Your task to perform on an android device: Add "razer thresher" to the cart on newegg.com, then select checkout. Image 0: 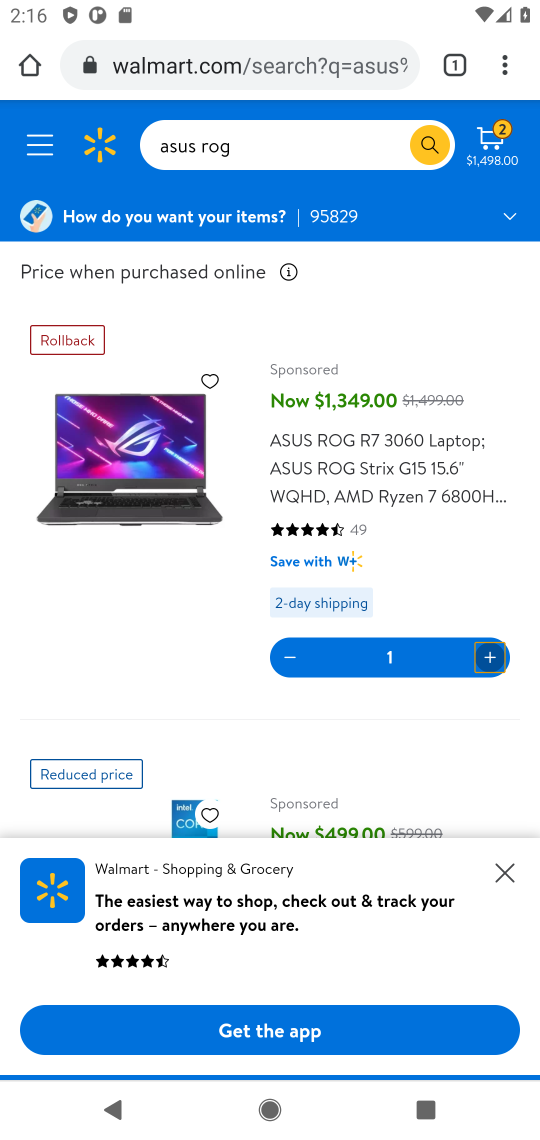
Step 0: click (229, 59)
Your task to perform on an android device: Add "razer thresher" to the cart on newegg.com, then select checkout. Image 1: 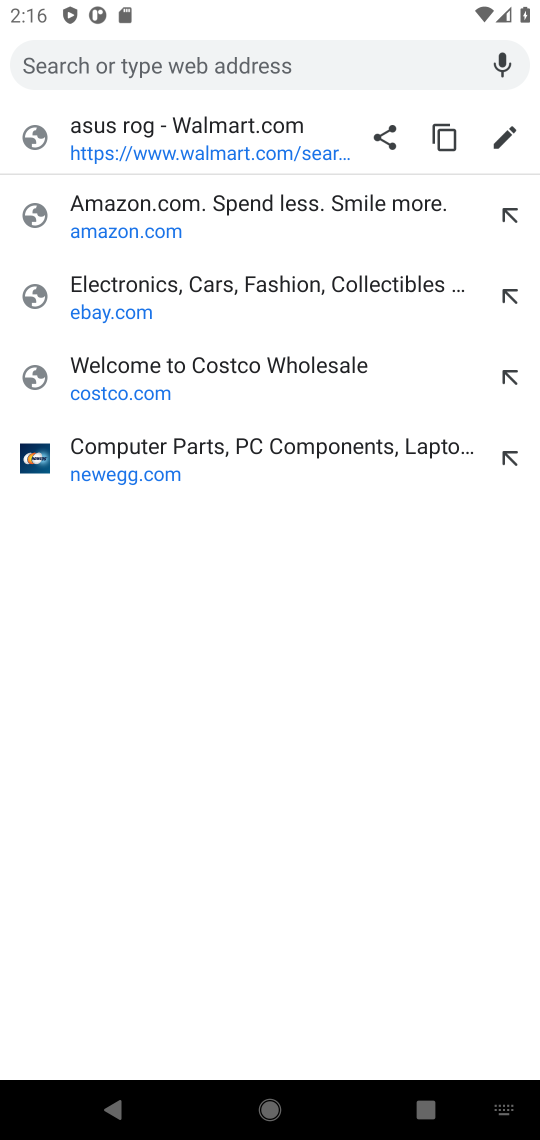
Step 1: click (88, 477)
Your task to perform on an android device: Add "razer thresher" to the cart on newegg.com, then select checkout. Image 2: 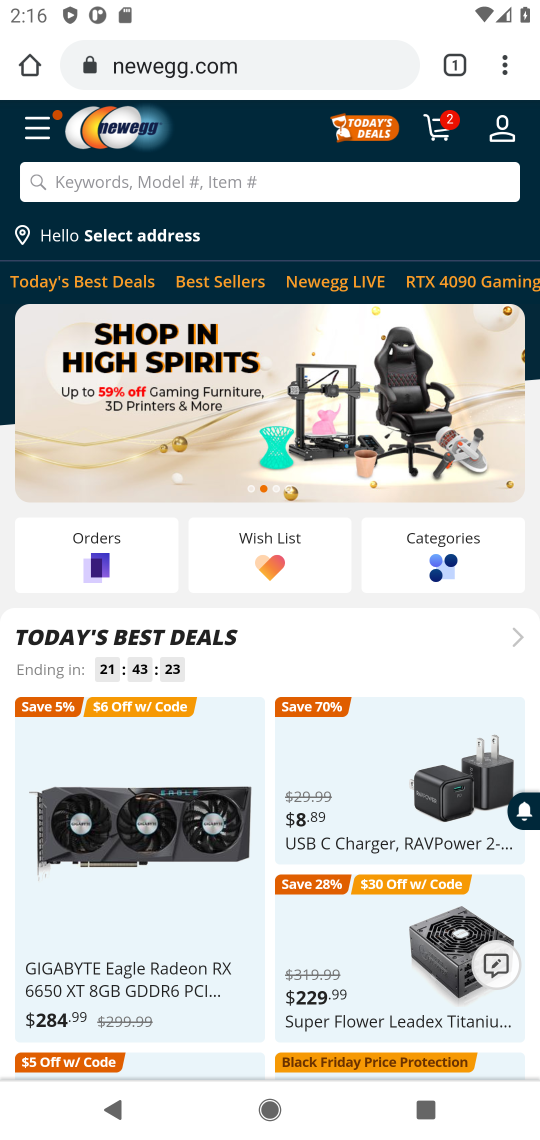
Step 2: click (201, 179)
Your task to perform on an android device: Add "razer thresher" to the cart on newegg.com, then select checkout. Image 3: 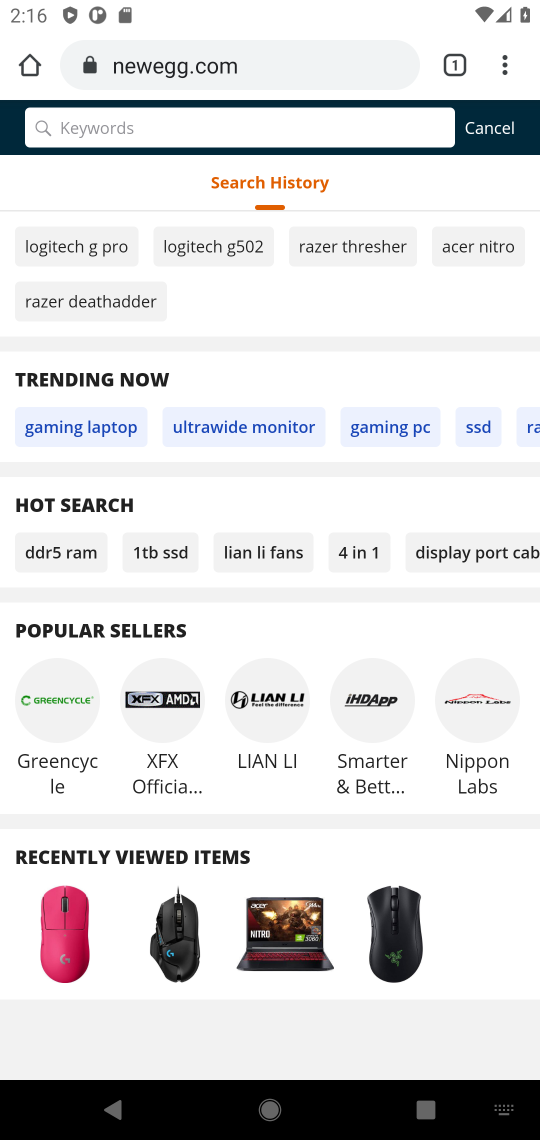
Step 3: type "razer thresher"
Your task to perform on an android device: Add "razer thresher" to the cart on newegg.com, then select checkout. Image 4: 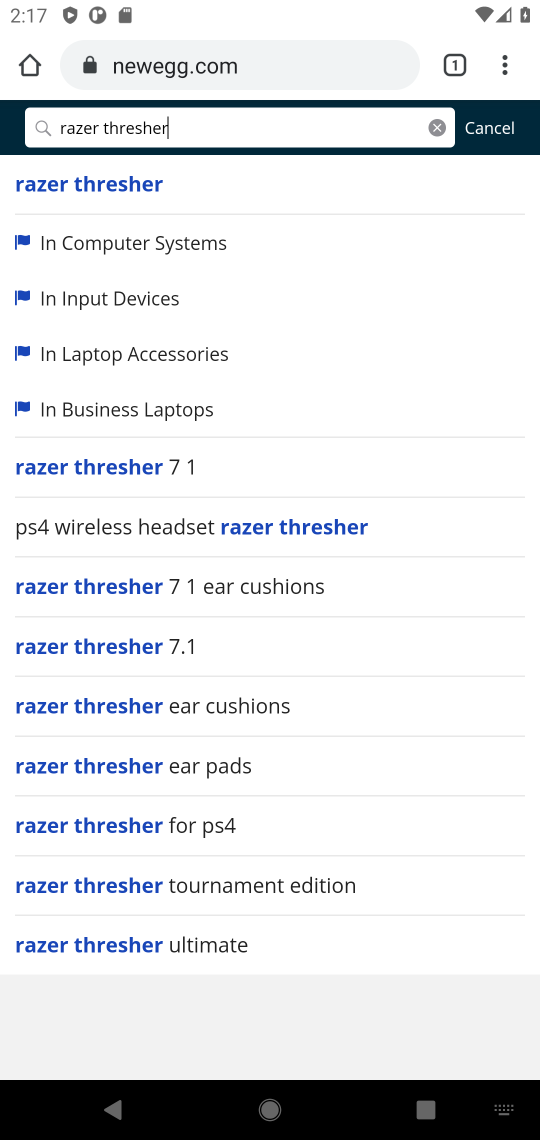
Step 4: click (96, 181)
Your task to perform on an android device: Add "razer thresher" to the cart on newegg.com, then select checkout. Image 5: 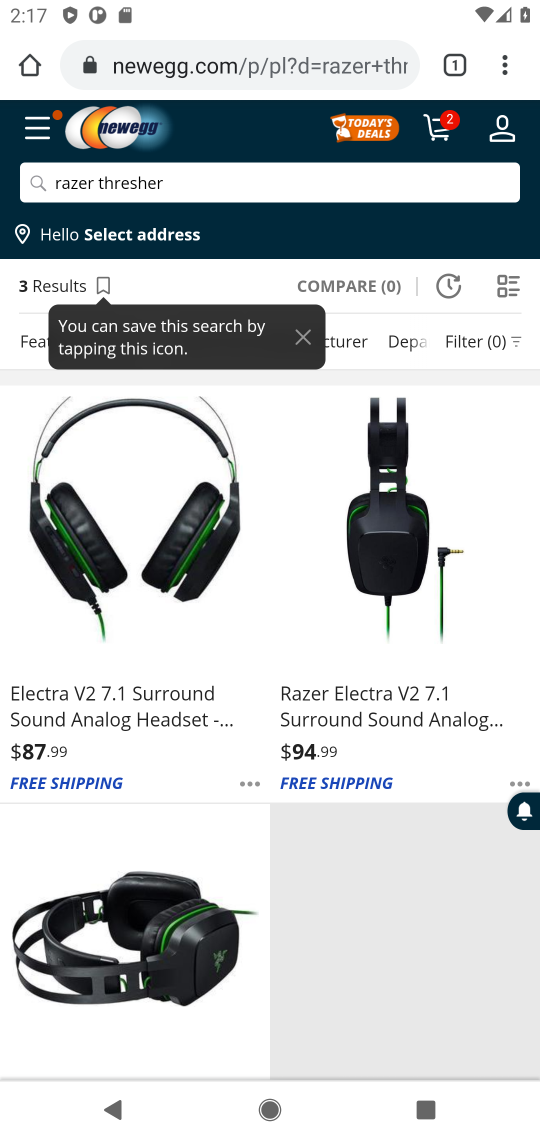
Step 5: task complete